Your task to perform on an android device: Show the shopping cart on bestbuy. Add logitech g910 to the cart on bestbuy, then select checkout. Image 0: 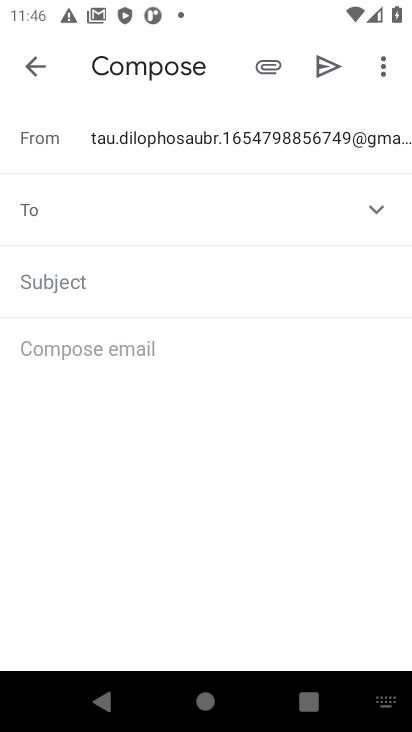
Step 0: press home button
Your task to perform on an android device: Show the shopping cart on bestbuy. Add logitech g910 to the cart on bestbuy, then select checkout. Image 1: 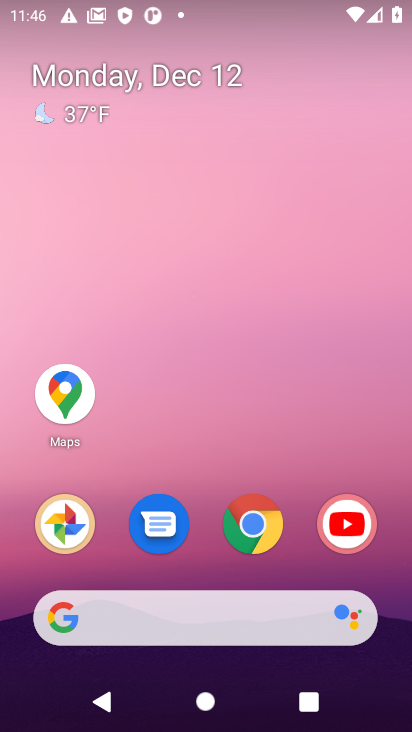
Step 1: click (251, 522)
Your task to perform on an android device: Show the shopping cart on bestbuy. Add logitech g910 to the cart on bestbuy, then select checkout. Image 2: 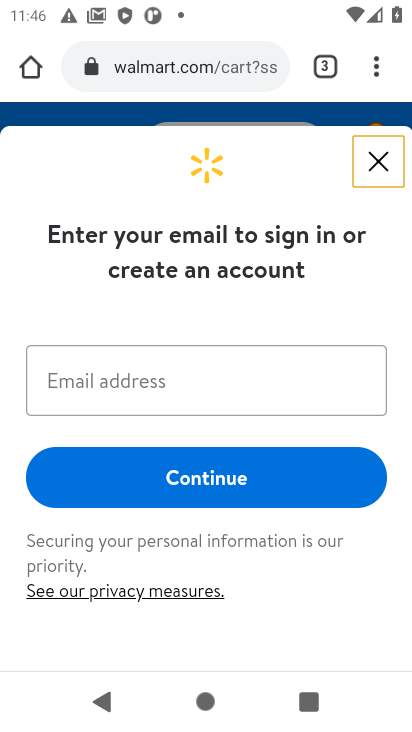
Step 2: click (166, 69)
Your task to perform on an android device: Show the shopping cart on bestbuy. Add logitech g910 to the cart on bestbuy, then select checkout. Image 3: 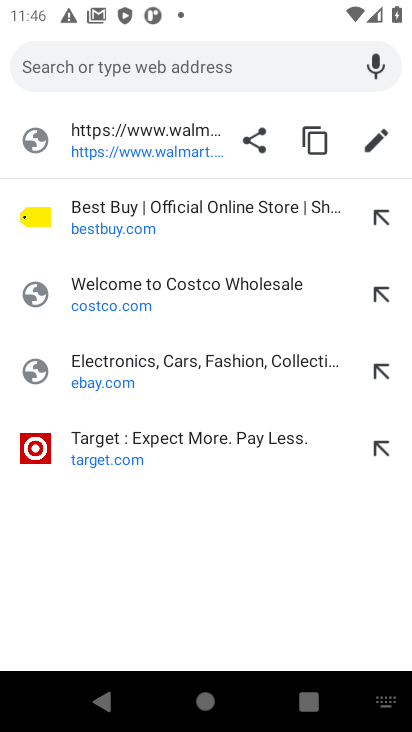
Step 3: click (107, 212)
Your task to perform on an android device: Show the shopping cart on bestbuy. Add logitech g910 to the cart on bestbuy, then select checkout. Image 4: 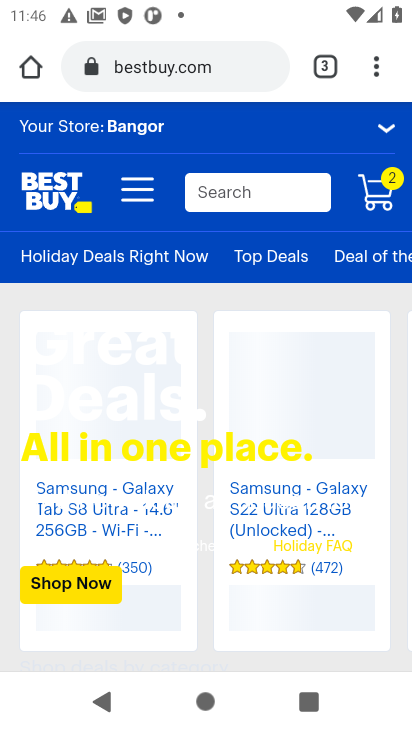
Step 4: click (375, 194)
Your task to perform on an android device: Show the shopping cart on bestbuy. Add logitech g910 to the cart on bestbuy, then select checkout. Image 5: 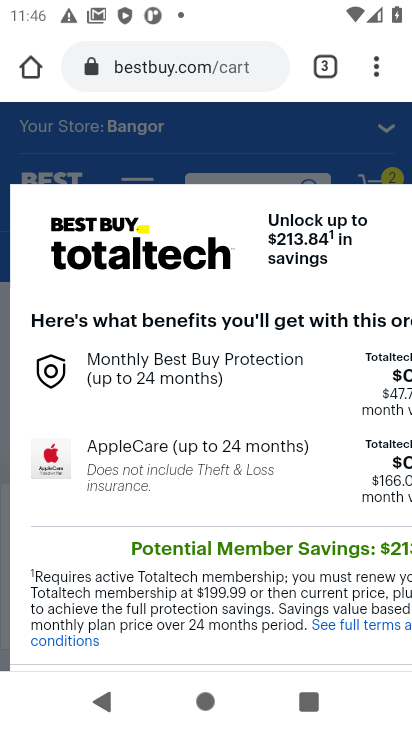
Step 5: drag from (376, 254) to (110, 262)
Your task to perform on an android device: Show the shopping cart on bestbuy. Add logitech g910 to the cart on bestbuy, then select checkout. Image 6: 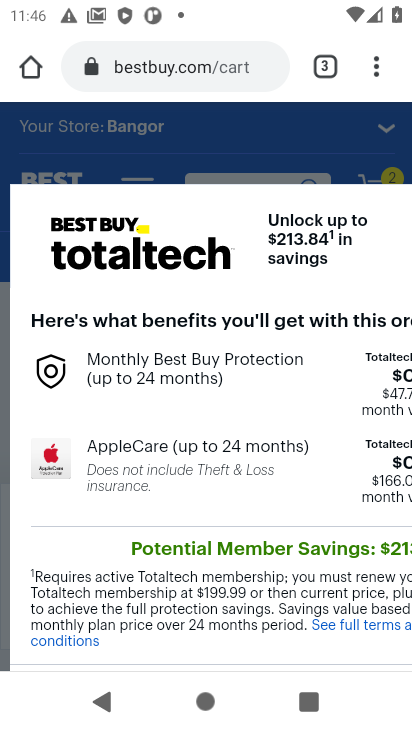
Step 6: click (254, 149)
Your task to perform on an android device: Show the shopping cart on bestbuy. Add logitech g910 to the cart on bestbuy, then select checkout. Image 7: 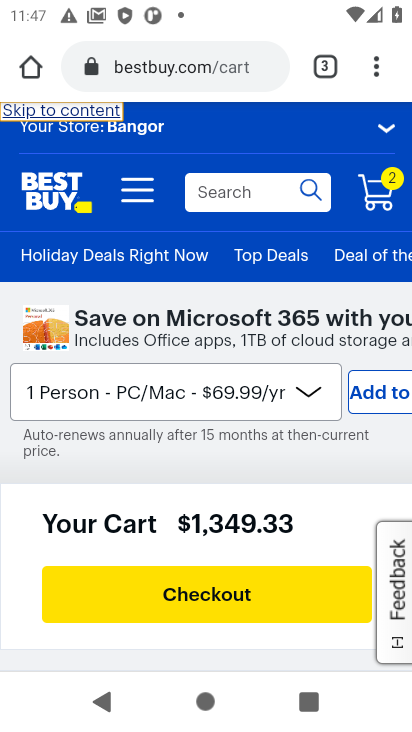
Step 7: click (232, 196)
Your task to perform on an android device: Show the shopping cart on bestbuy. Add logitech g910 to the cart on bestbuy, then select checkout. Image 8: 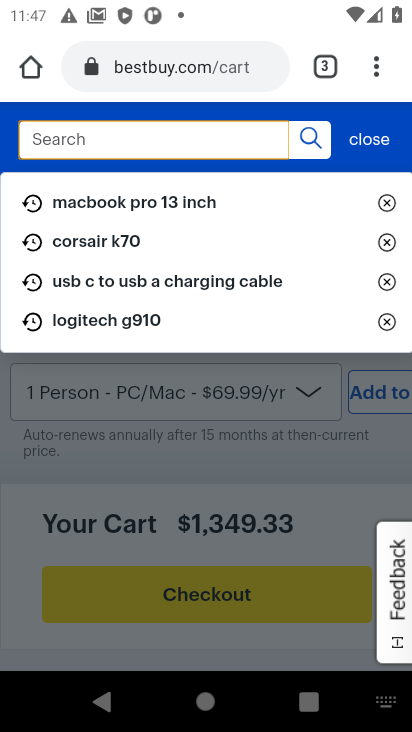
Step 8: type "logitech g910"
Your task to perform on an android device: Show the shopping cart on bestbuy. Add logitech g910 to the cart on bestbuy, then select checkout. Image 9: 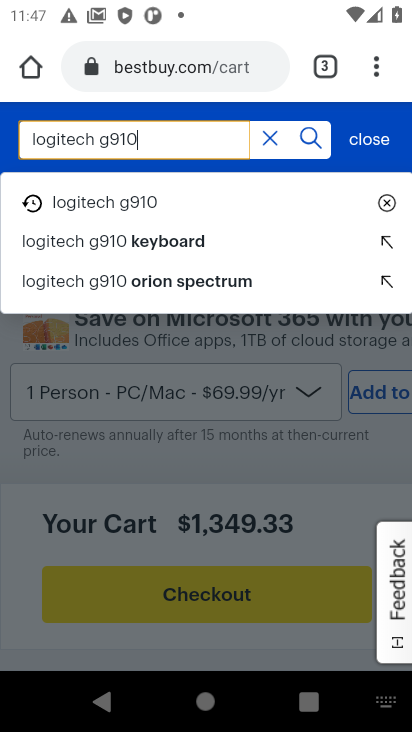
Step 9: click (84, 210)
Your task to perform on an android device: Show the shopping cart on bestbuy. Add logitech g910 to the cart on bestbuy, then select checkout. Image 10: 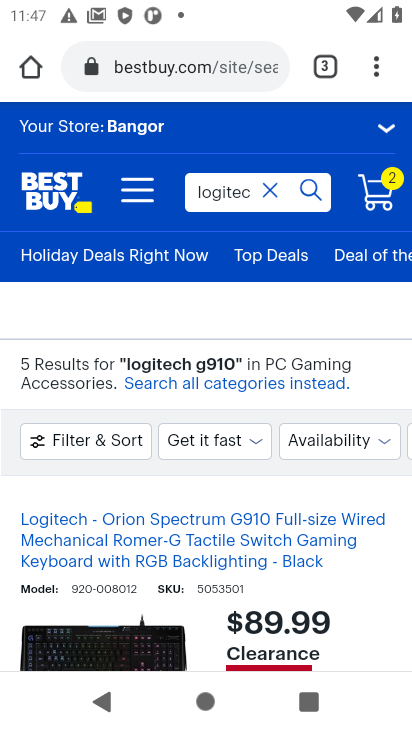
Step 10: task complete